Your task to perform on an android device: Go to notification settings Image 0: 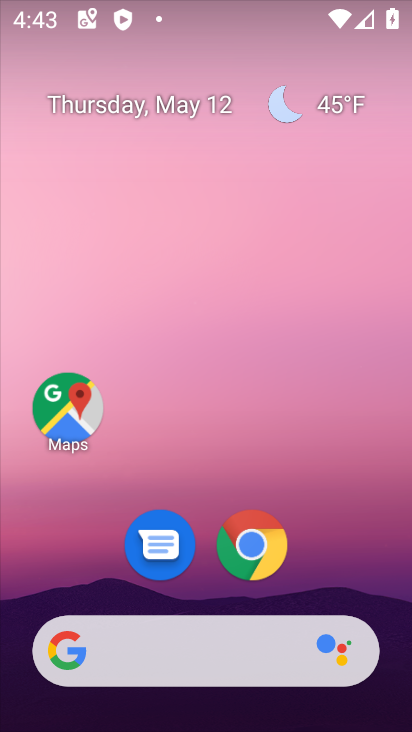
Step 0: drag from (359, 553) to (283, 123)
Your task to perform on an android device: Go to notification settings Image 1: 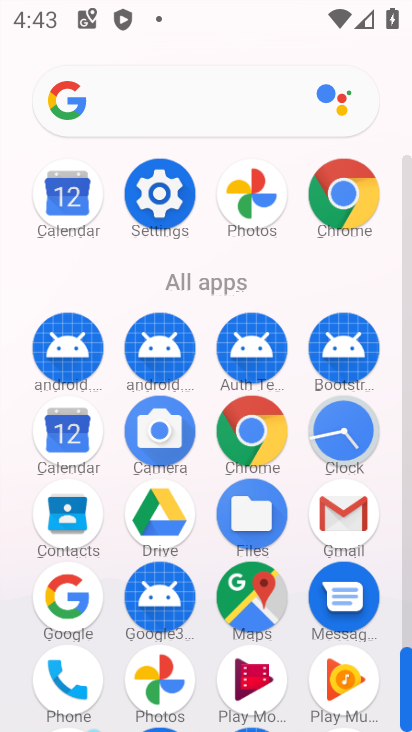
Step 1: click (169, 189)
Your task to perform on an android device: Go to notification settings Image 2: 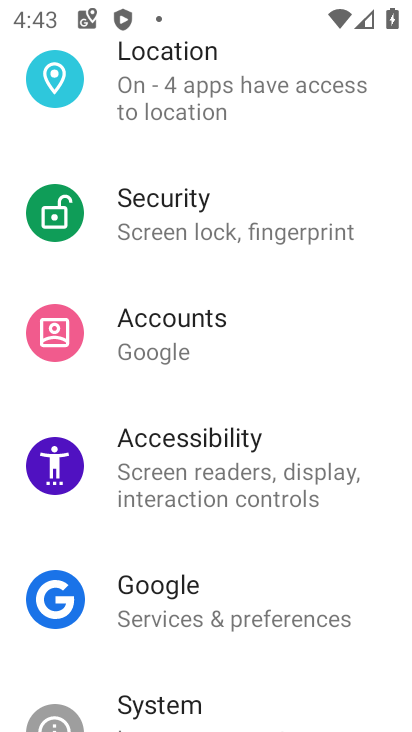
Step 2: drag from (244, 203) to (368, 79)
Your task to perform on an android device: Go to notification settings Image 3: 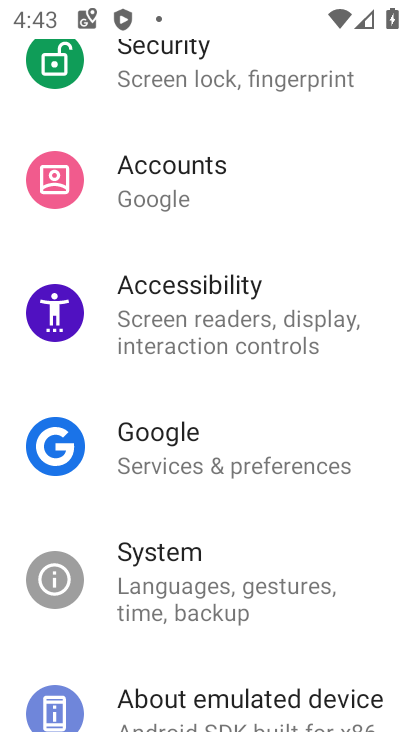
Step 3: drag from (202, 510) to (242, 729)
Your task to perform on an android device: Go to notification settings Image 4: 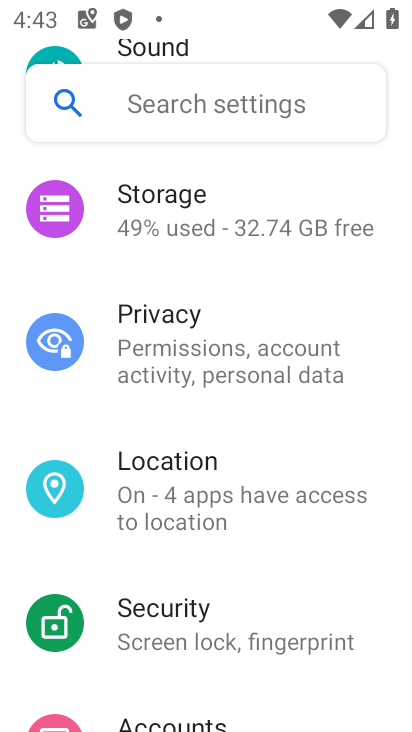
Step 4: drag from (249, 259) to (210, 700)
Your task to perform on an android device: Go to notification settings Image 5: 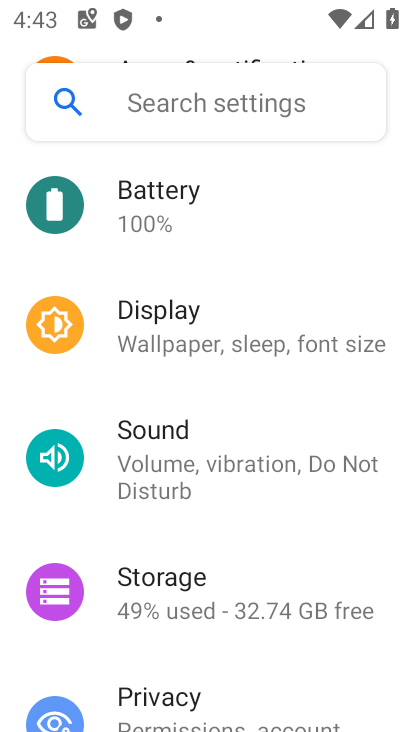
Step 5: drag from (205, 324) to (204, 692)
Your task to perform on an android device: Go to notification settings Image 6: 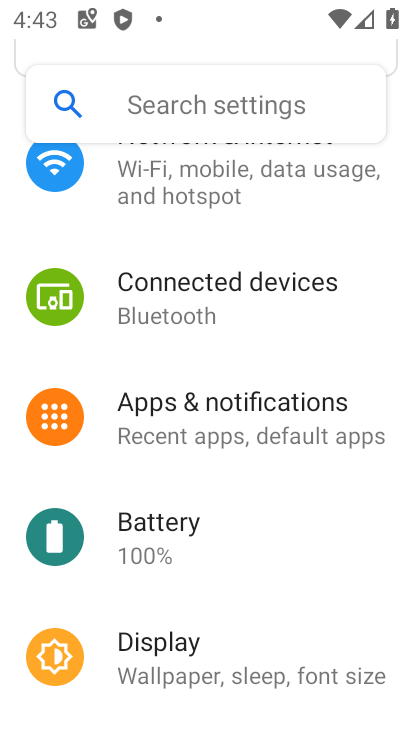
Step 6: click (237, 418)
Your task to perform on an android device: Go to notification settings Image 7: 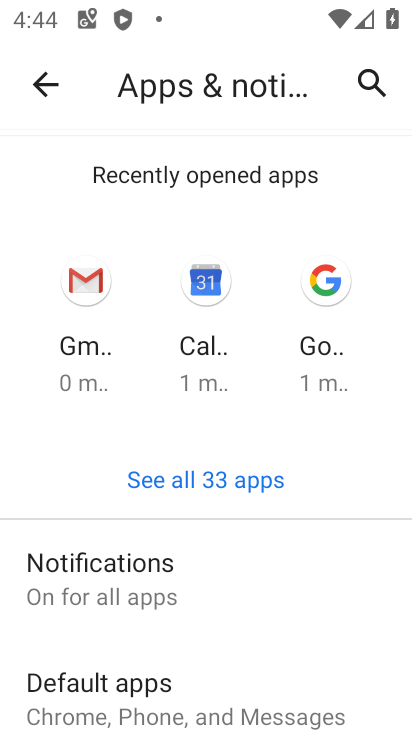
Step 7: click (115, 567)
Your task to perform on an android device: Go to notification settings Image 8: 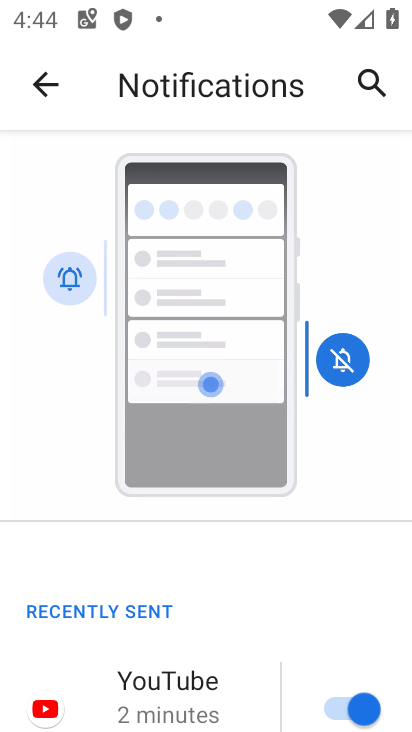
Step 8: task complete